Your task to perform on an android device: toggle pop-ups in chrome Image 0: 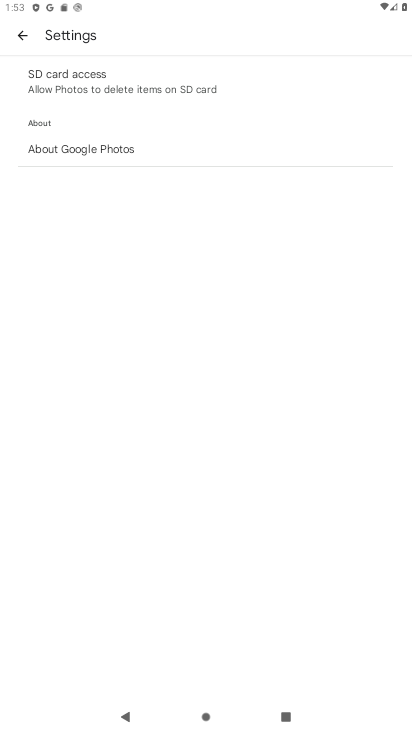
Step 0: press home button
Your task to perform on an android device: toggle pop-ups in chrome Image 1: 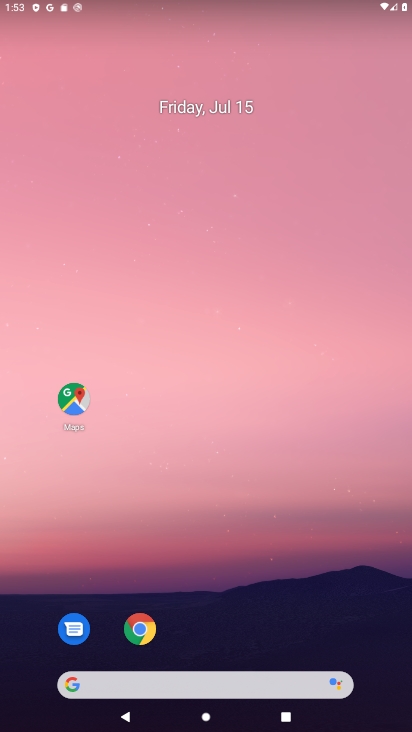
Step 1: click (142, 638)
Your task to perform on an android device: toggle pop-ups in chrome Image 2: 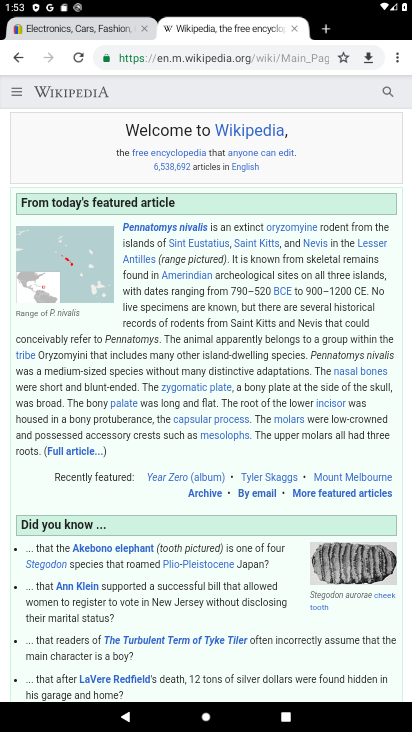
Step 2: click (396, 57)
Your task to perform on an android device: toggle pop-ups in chrome Image 3: 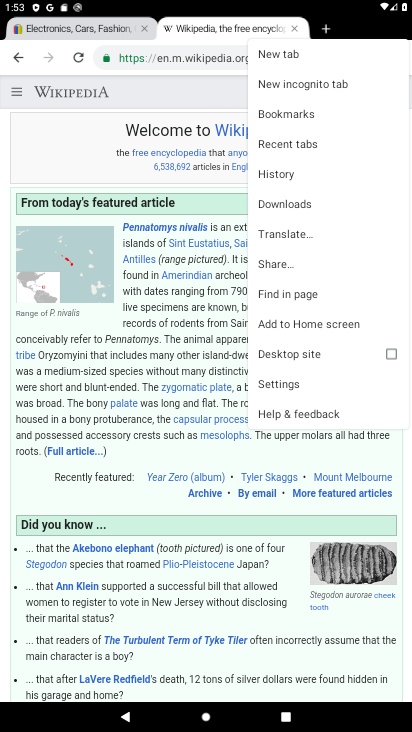
Step 3: click (274, 378)
Your task to perform on an android device: toggle pop-ups in chrome Image 4: 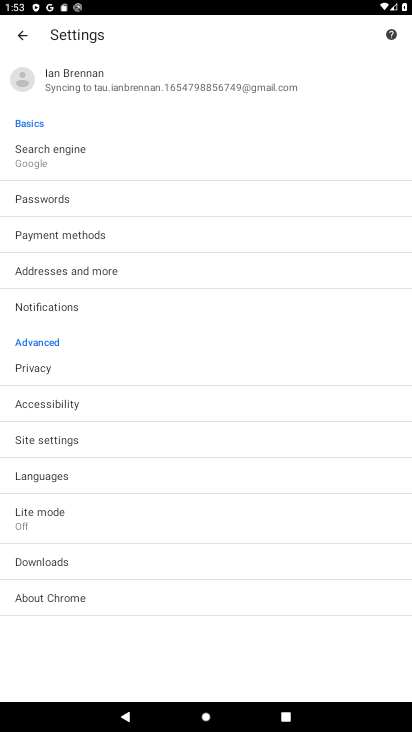
Step 4: click (43, 434)
Your task to perform on an android device: toggle pop-ups in chrome Image 5: 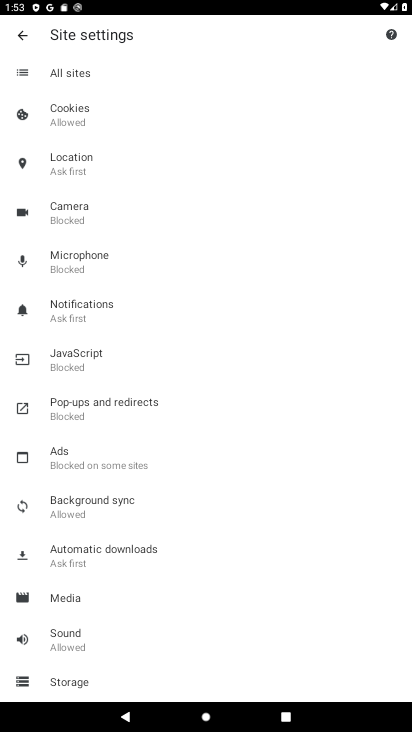
Step 5: click (67, 415)
Your task to perform on an android device: toggle pop-ups in chrome Image 6: 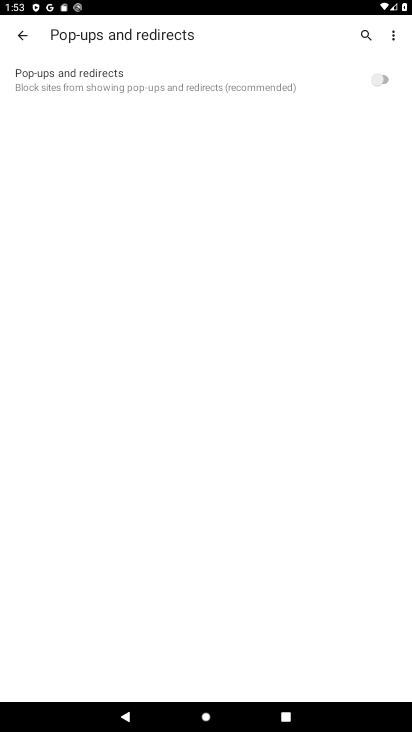
Step 6: click (384, 78)
Your task to perform on an android device: toggle pop-ups in chrome Image 7: 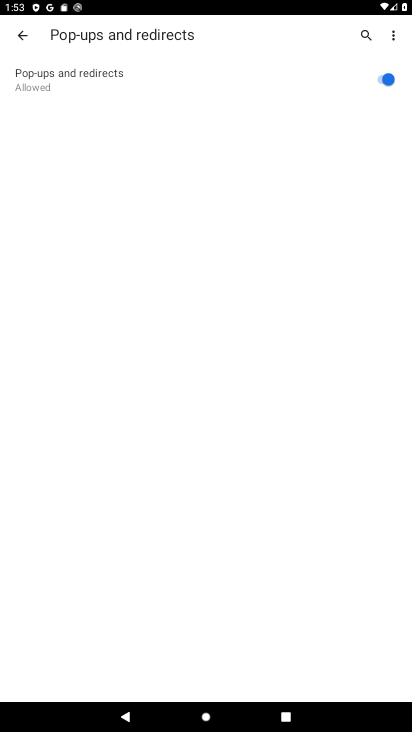
Step 7: task complete